Your task to perform on an android device: set the stopwatch Image 0: 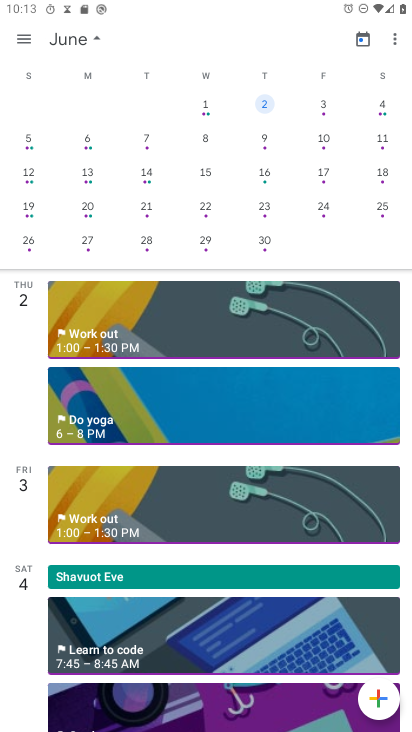
Step 0: press home button
Your task to perform on an android device: set the stopwatch Image 1: 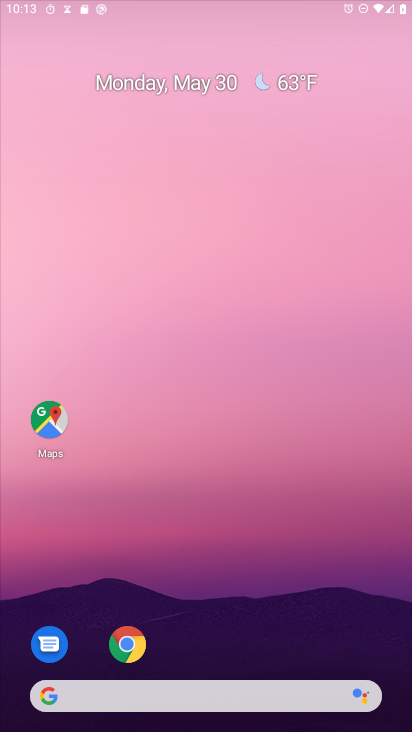
Step 1: drag from (211, 653) to (245, 79)
Your task to perform on an android device: set the stopwatch Image 2: 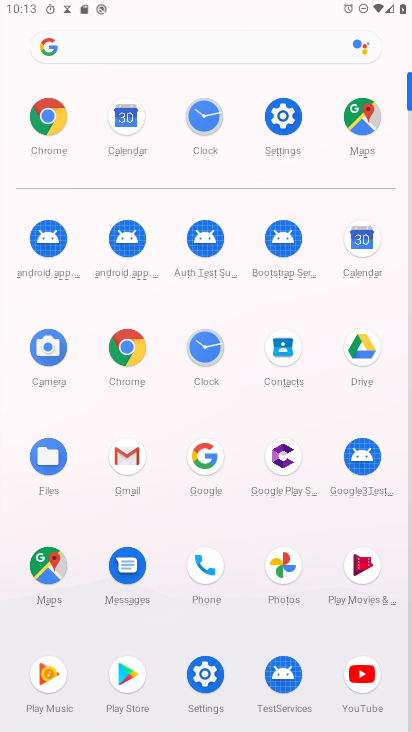
Step 2: click (205, 345)
Your task to perform on an android device: set the stopwatch Image 3: 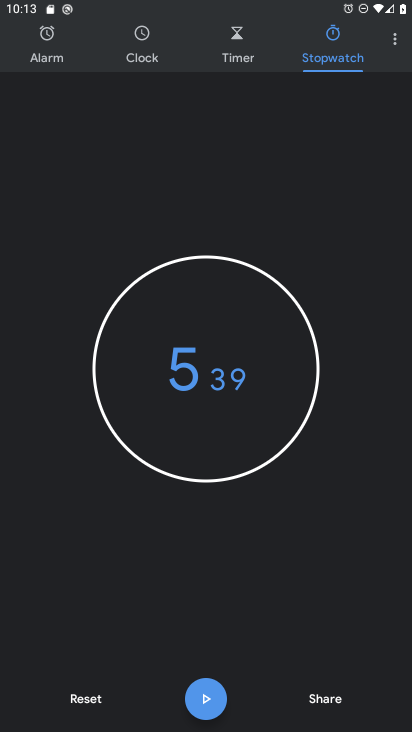
Step 3: task complete